Your task to perform on an android device: add a contact Image 0: 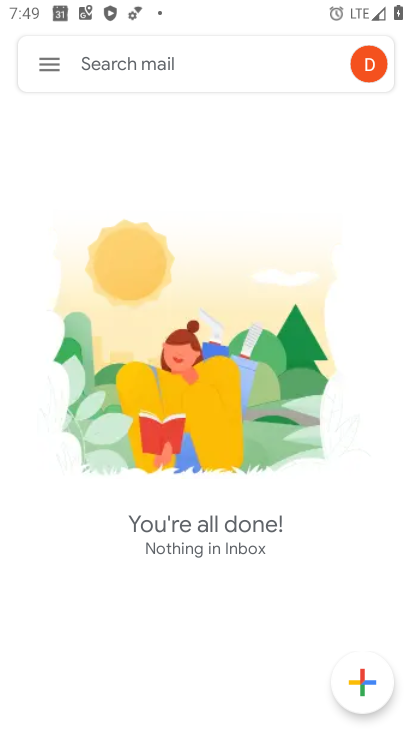
Step 0: press home button
Your task to perform on an android device: add a contact Image 1: 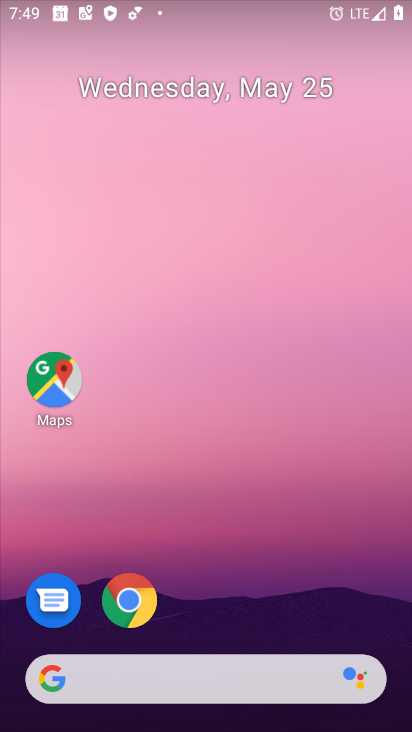
Step 1: drag from (302, 540) to (138, 102)
Your task to perform on an android device: add a contact Image 2: 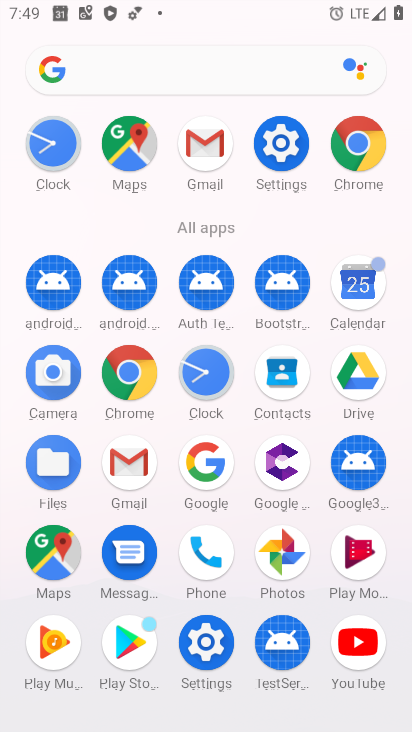
Step 2: click (278, 375)
Your task to perform on an android device: add a contact Image 3: 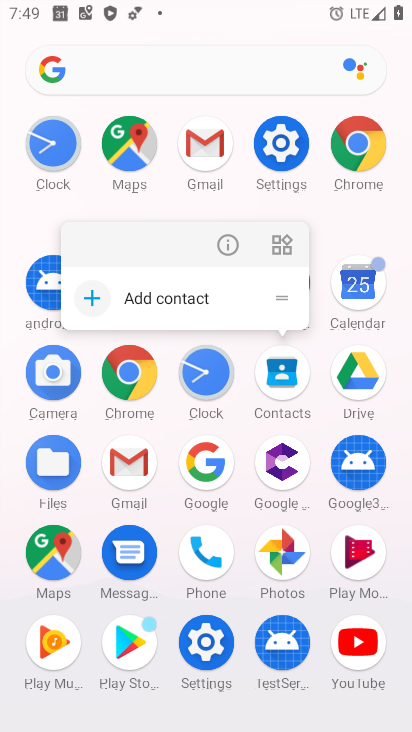
Step 3: click (279, 373)
Your task to perform on an android device: add a contact Image 4: 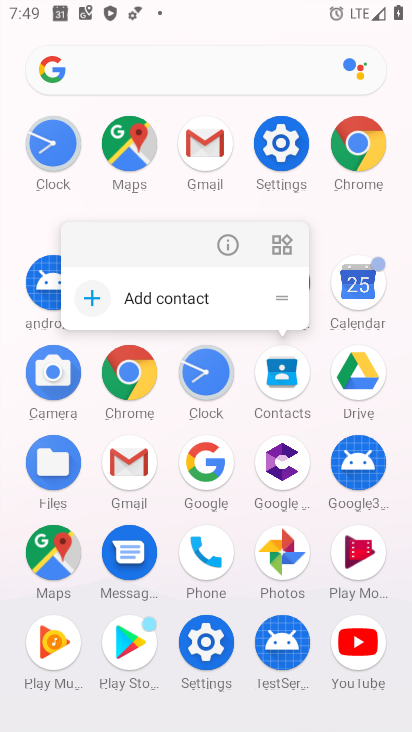
Step 4: click (280, 359)
Your task to perform on an android device: add a contact Image 5: 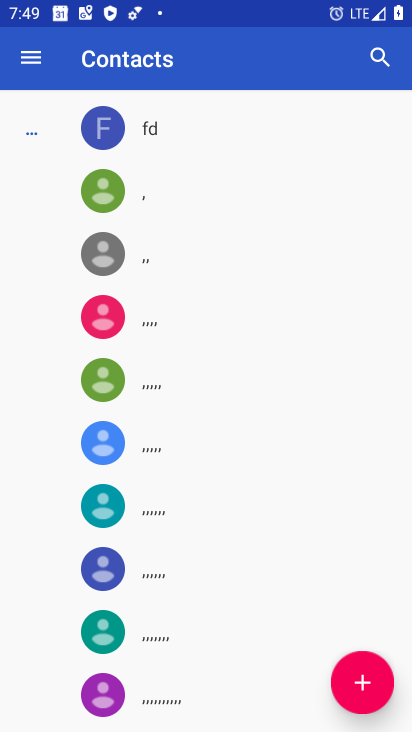
Step 5: click (374, 649)
Your task to perform on an android device: add a contact Image 6: 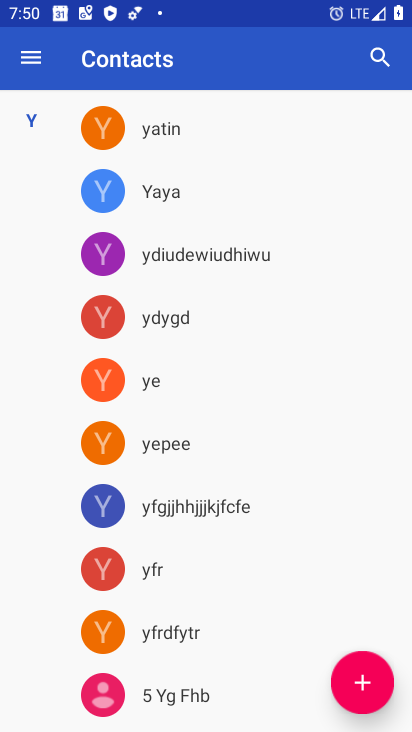
Step 6: click (358, 689)
Your task to perform on an android device: add a contact Image 7: 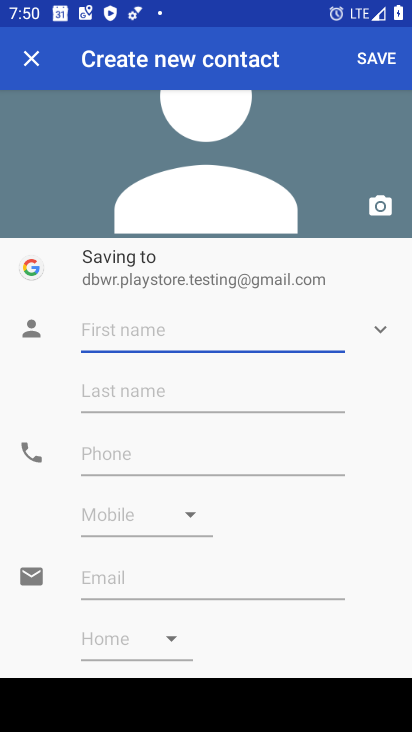
Step 7: click (178, 318)
Your task to perform on an android device: add a contact Image 8: 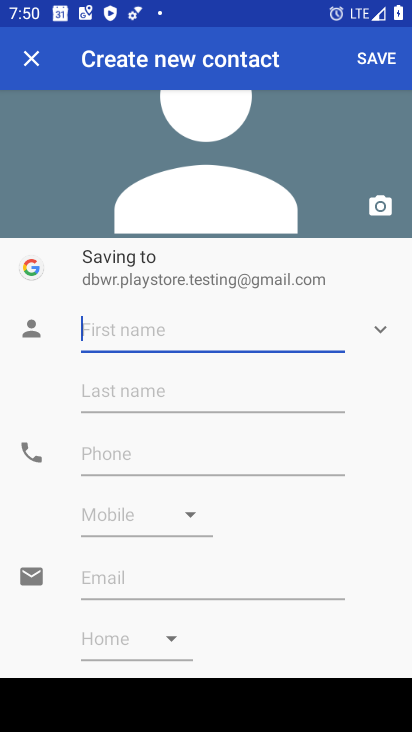
Step 8: type "go pro"
Your task to perform on an android device: add a contact Image 9: 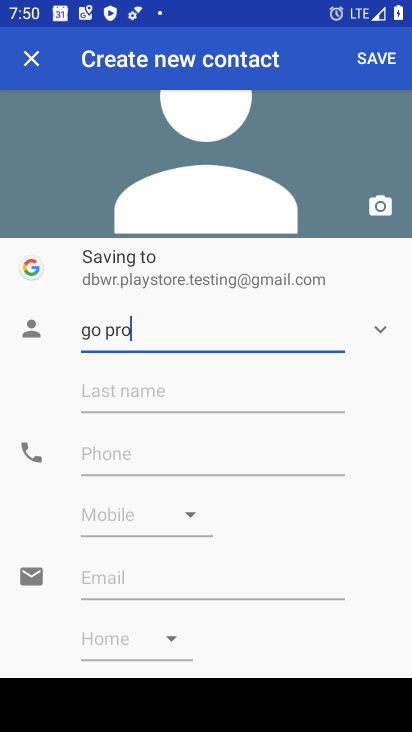
Step 9: click (366, 53)
Your task to perform on an android device: add a contact Image 10: 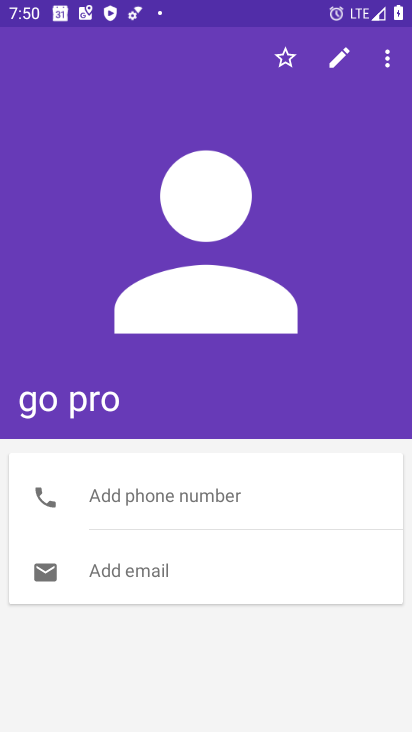
Step 10: task complete